Your task to perform on an android device: turn on translation in the chrome app Image 0: 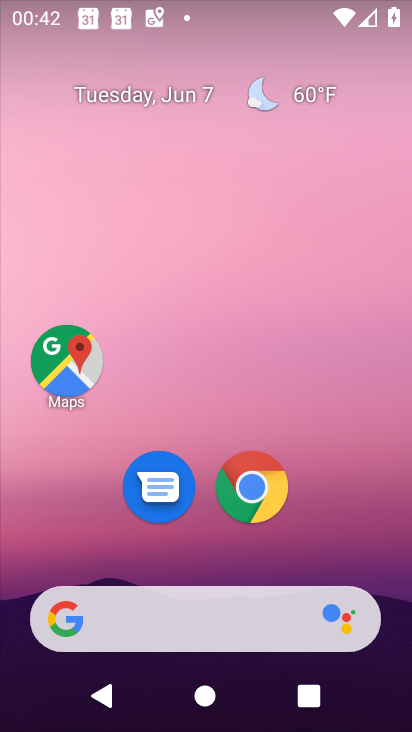
Step 0: click (262, 495)
Your task to perform on an android device: turn on translation in the chrome app Image 1: 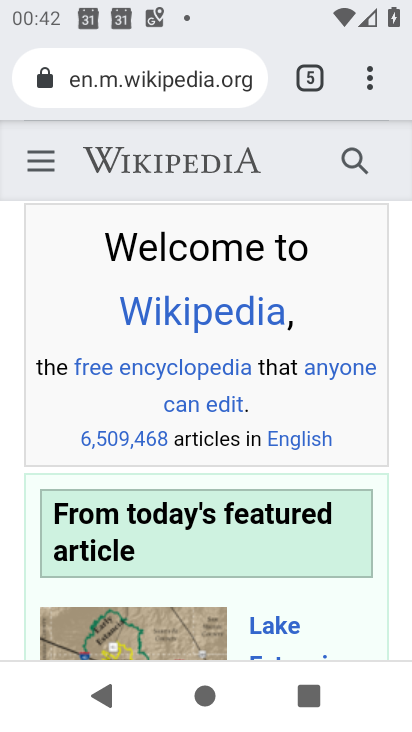
Step 1: click (376, 77)
Your task to perform on an android device: turn on translation in the chrome app Image 2: 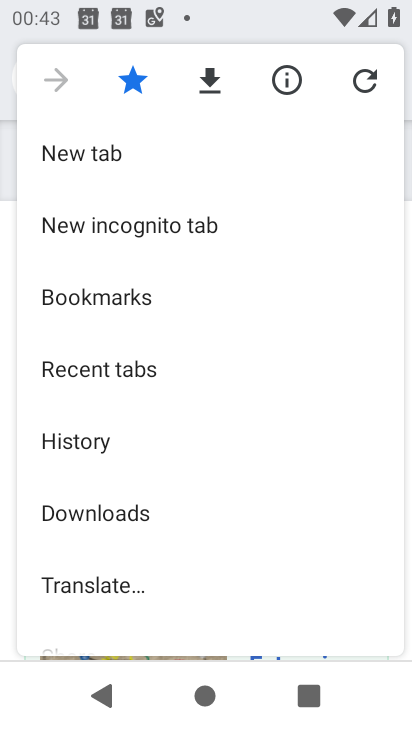
Step 2: drag from (253, 550) to (205, 155)
Your task to perform on an android device: turn on translation in the chrome app Image 3: 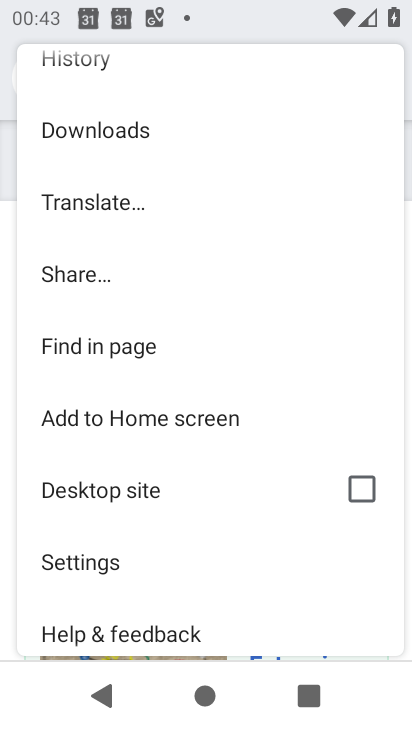
Step 3: click (192, 557)
Your task to perform on an android device: turn on translation in the chrome app Image 4: 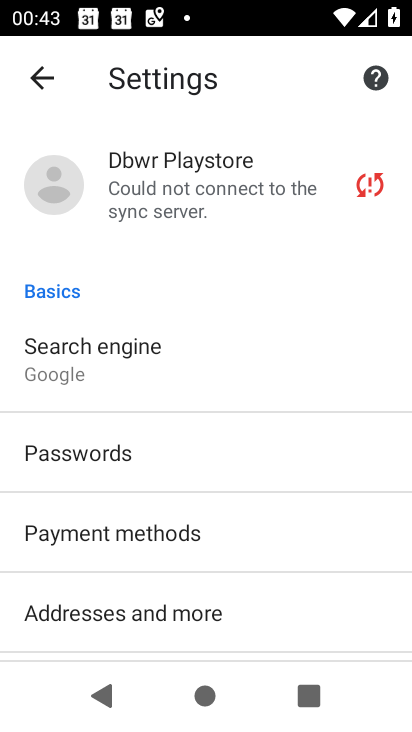
Step 4: drag from (246, 616) to (165, 195)
Your task to perform on an android device: turn on translation in the chrome app Image 5: 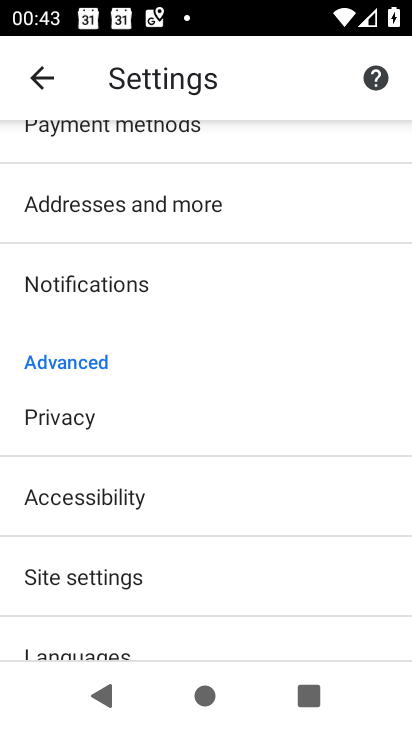
Step 5: drag from (293, 627) to (252, 322)
Your task to perform on an android device: turn on translation in the chrome app Image 6: 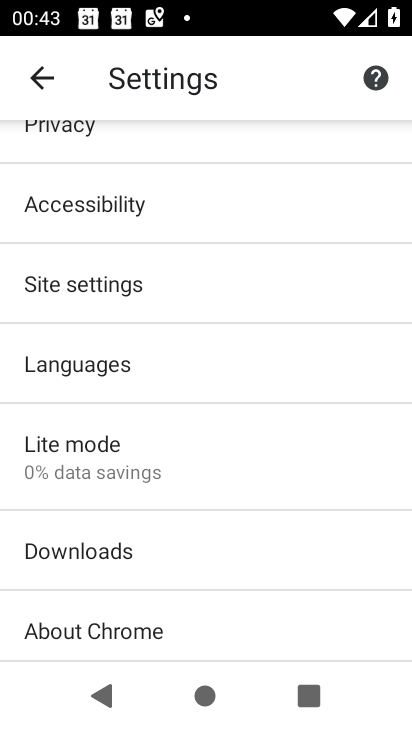
Step 6: click (227, 375)
Your task to perform on an android device: turn on translation in the chrome app Image 7: 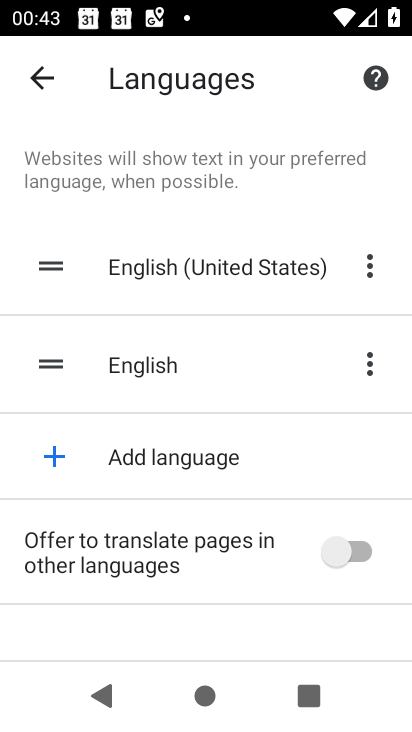
Step 7: click (376, 557)
Your task to perform on an android device: turn on translation in the chrome app Image 8: 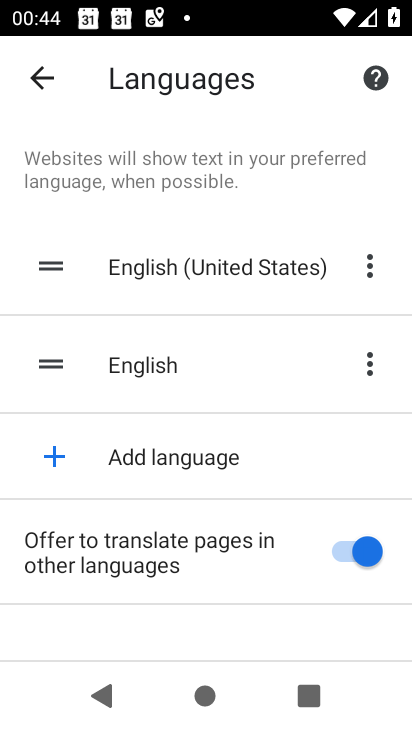
Step 8: task complete